Your task to perform on an android device: turn off notifications in google photos Image 0: 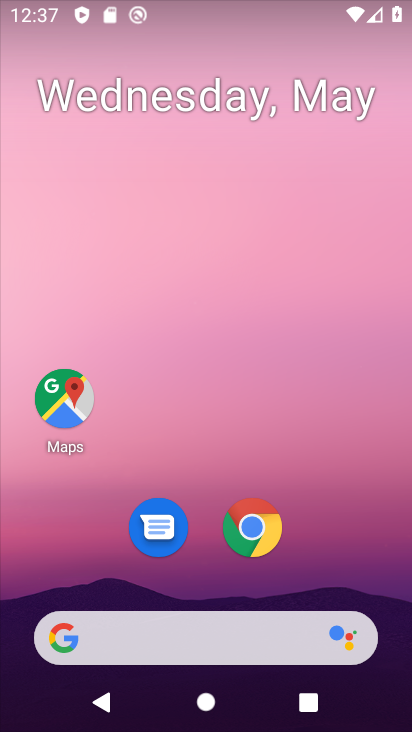
Step 0: drag from (308, 474) to (77, 78)
Your task to perform on an android device: turn off notifications in google photos Image 1: 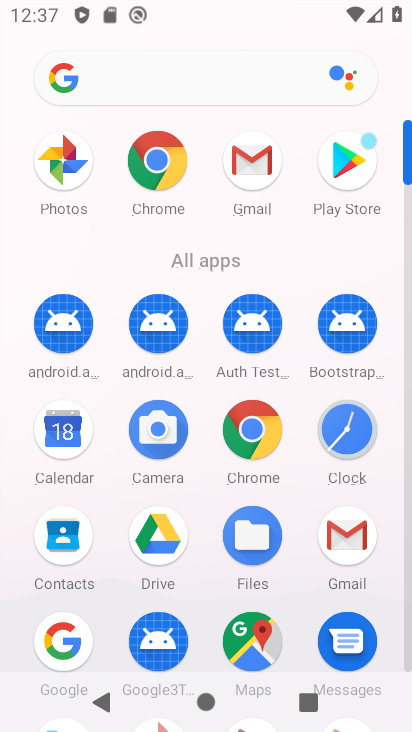
Step 1: click (69, 172)
Your task to perform on an android device: turn off notifications in google photos Image 2: 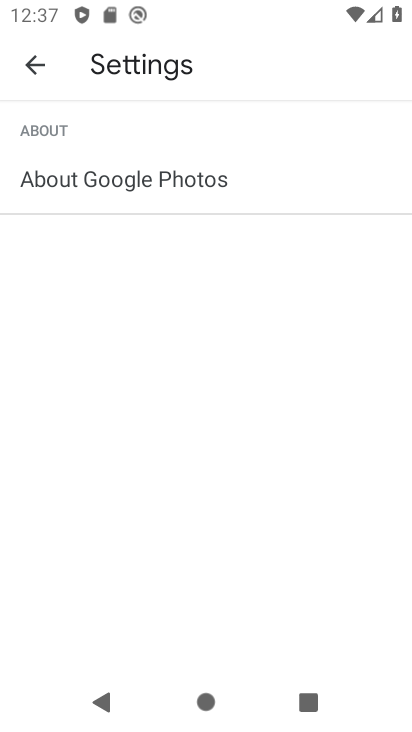
Step 2: click (34, 71)
Your task to perform on an android device: turn off notifications in google photos Image 3: 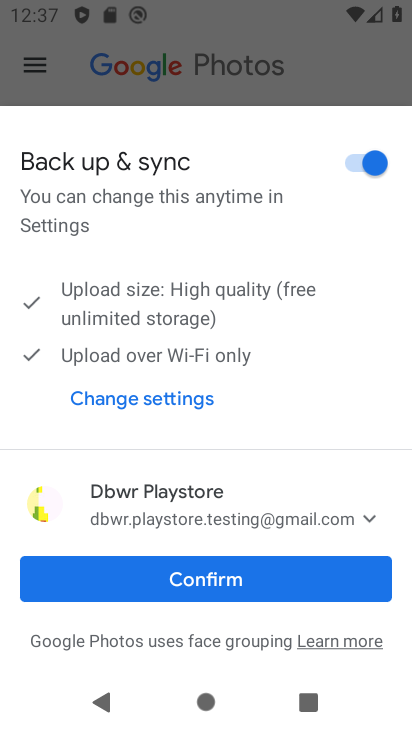
Step 3: click (180, 572)
Your task to perform on an android device: turn off notifications in google photos Image 4: 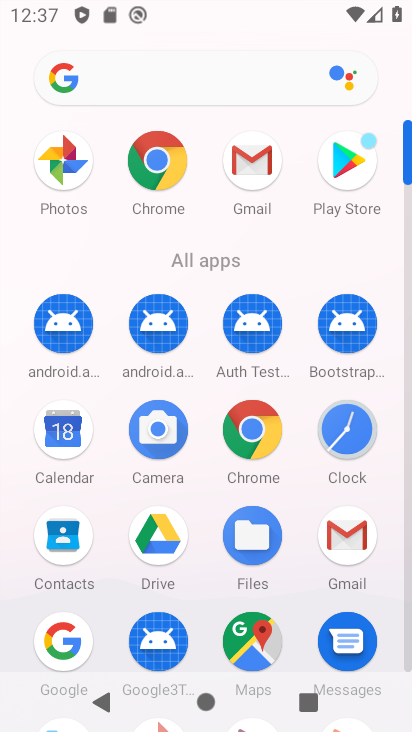
Step 4: click (70, 175)
Your task to perform on an android device: turn off notifications in google photos Image 5: 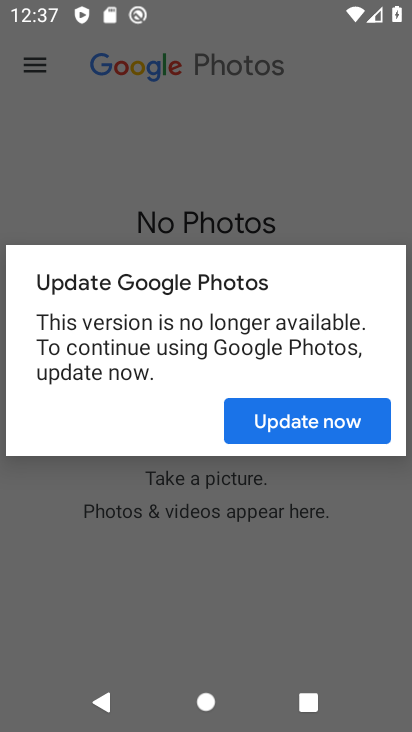
Step 5: click (282, 407)
Your task to perform on an android device: turn off notifications in google photos Image 6: 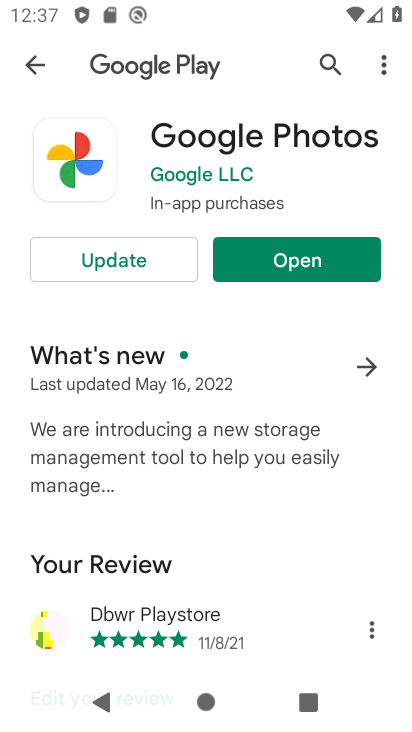
Step 6: click (156, 274)
Your task to perform on an android device: turn off notifications in google photos Image 7: 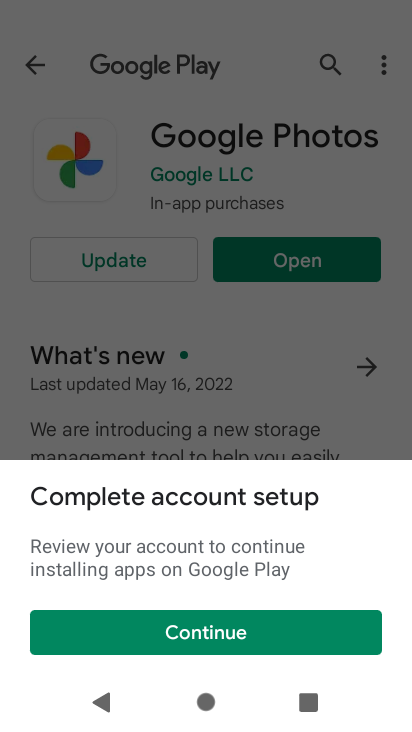
Step 7: click (234, 620)
Your task to perform on an android device: turn off notifications in google photos Image 8: 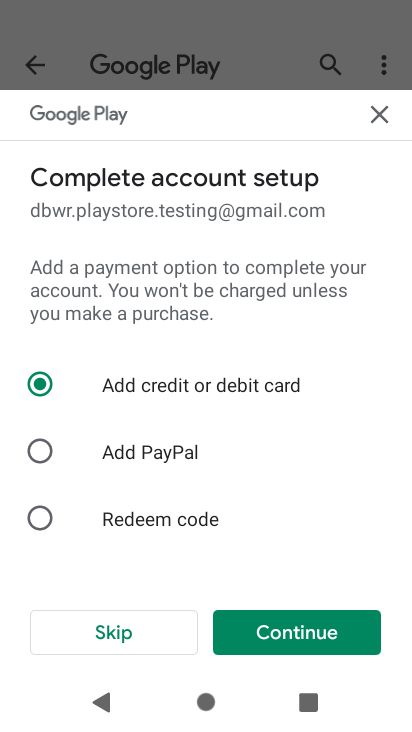
Step 8: click (86, 632)
Your task to perform on an android device: turn off notifications in google photos Image 9: 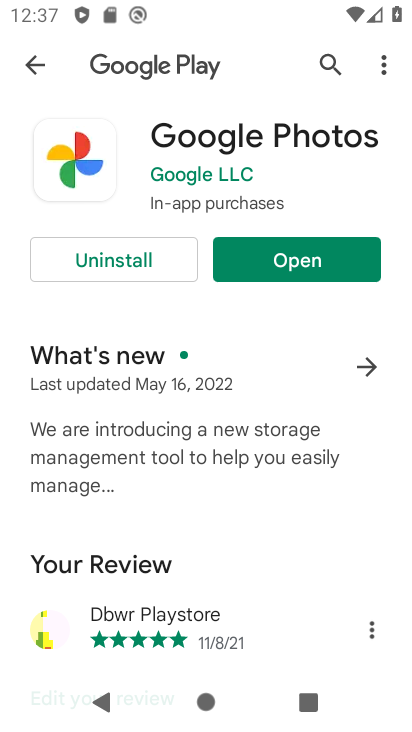
Step 9: click (332, 269)
Your task to perform on an android device: turn off notifications in google photos Image 10: 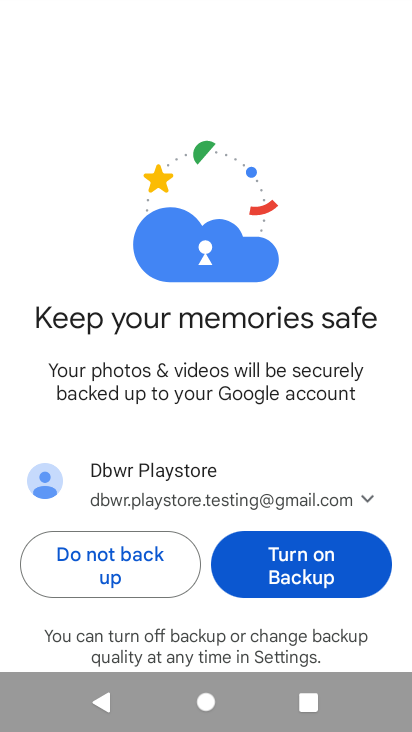
Step 10: click (165, 561)
Your task to perform on an android device: turn off notifications in google photos Image 11: 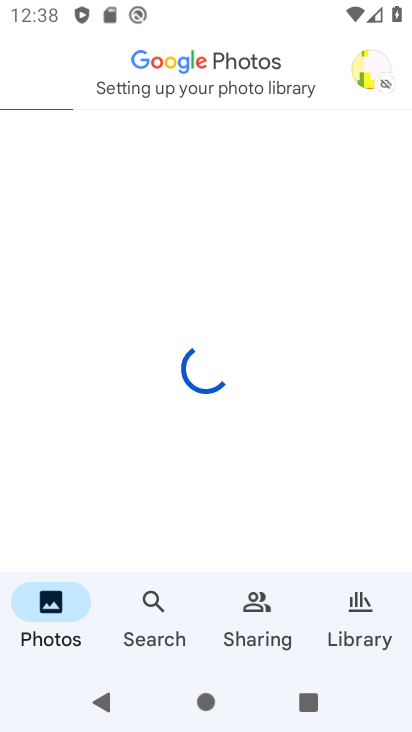
Step 11: click (360, 60)
Your task to perform on an android device: turn off notifications in google photos Image 12: 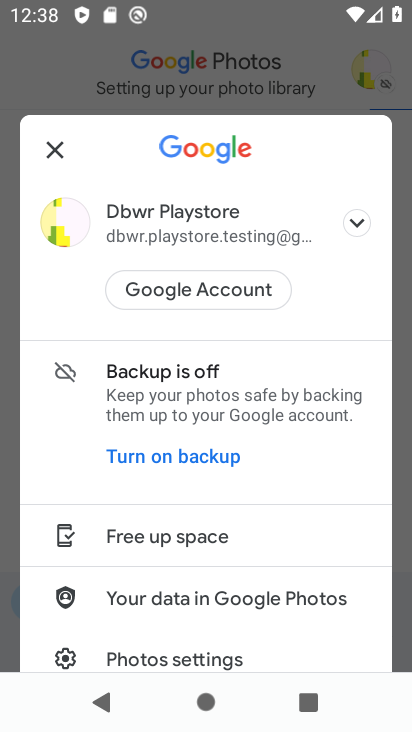
Step 12: drag from (223, 620) to (244, 380)
Your task to perform on an android device: turn off notifications in google photos Image 13: 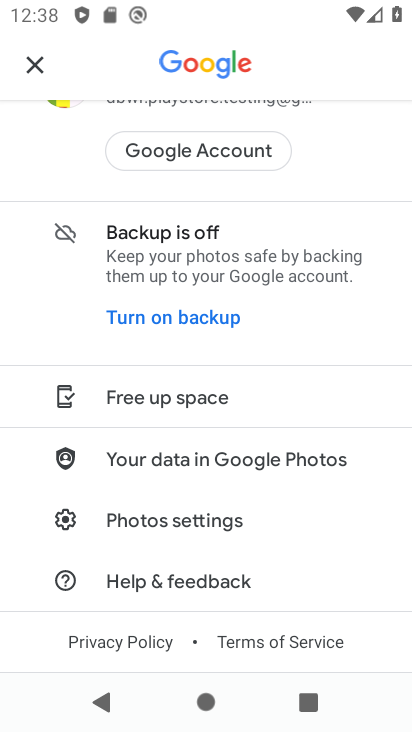
Step 13: click (209, 520)
Your task to perform on an android device: turn off notifications in google photos Image 14: 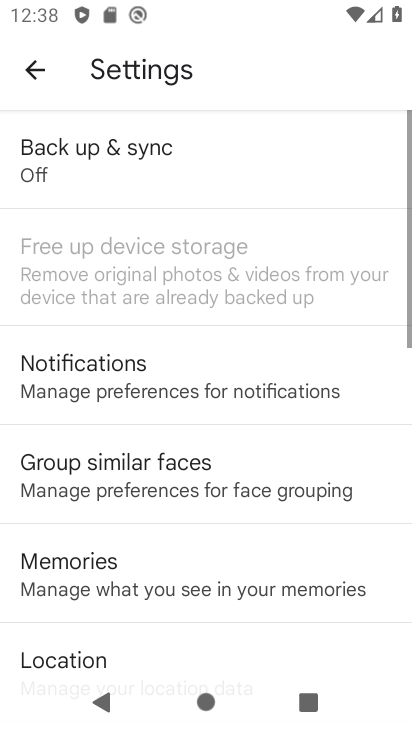
Step 14: click (182, 412)
Your task to perform on an android device: turn off notifications in google photos Image 15: 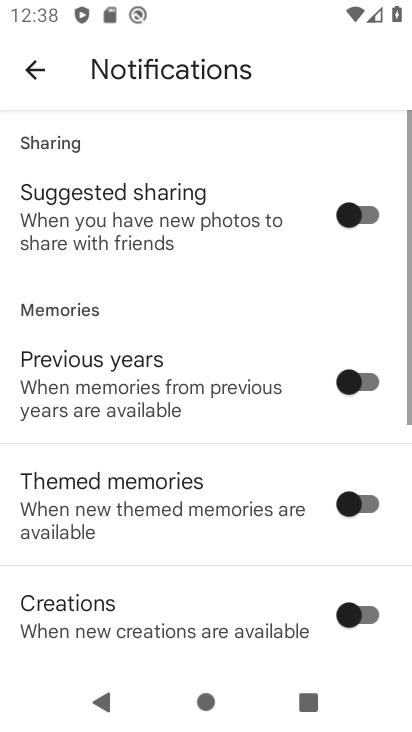
Step 15: drag from (120, 623) to (120, 295)
Your task to perform on an android device: turn off notifications in google photos Image 16: 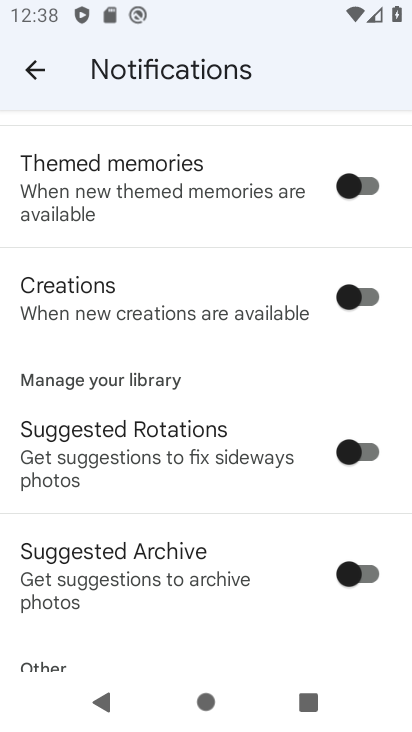
Step 16: drag from (63, 557) to (61, 243)
Your task to perform on an android device: turn off notifications in google photos Image 17: 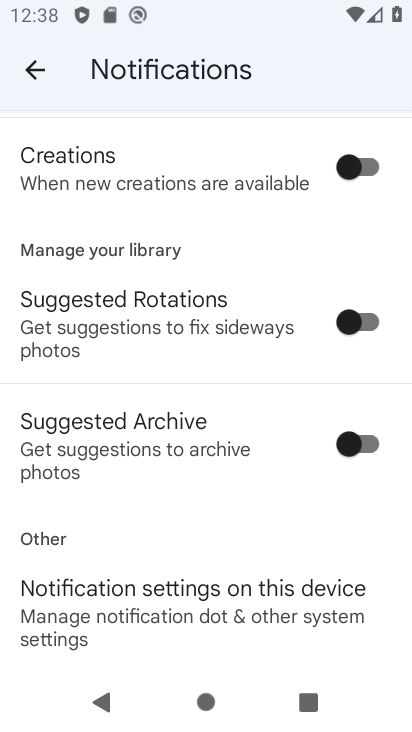
Step 17: click (139, 616)
Your task to perform on an android device: turn off notifications in google photos Image 18: 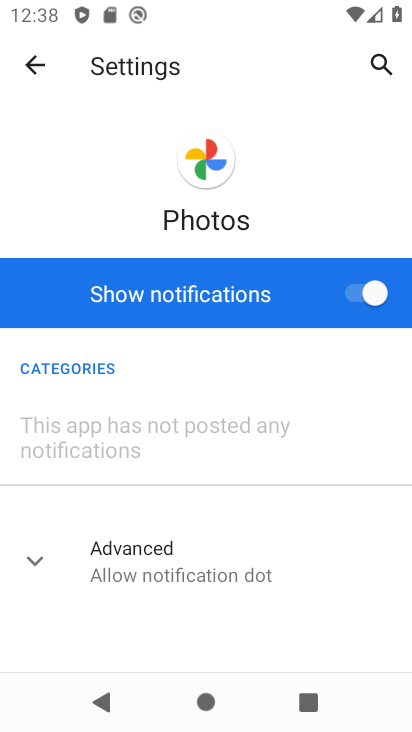
Step 18: click (370, 299)
Your task to perform on an android device: turn off notifications in google photos Image 19: 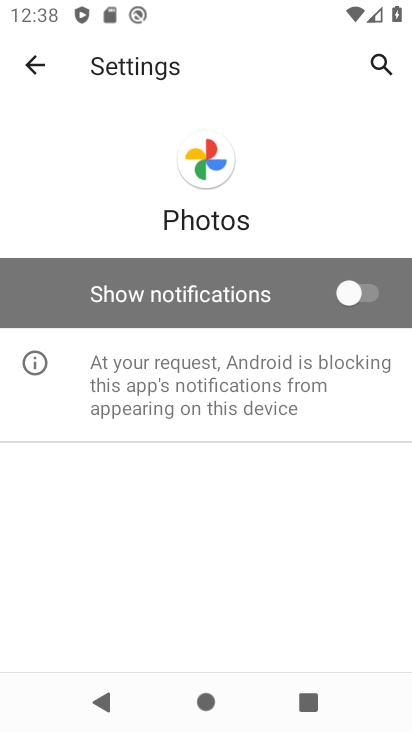
Step 19: task complete